Your task to perform on an android device: turn off airplane mode Image 0: 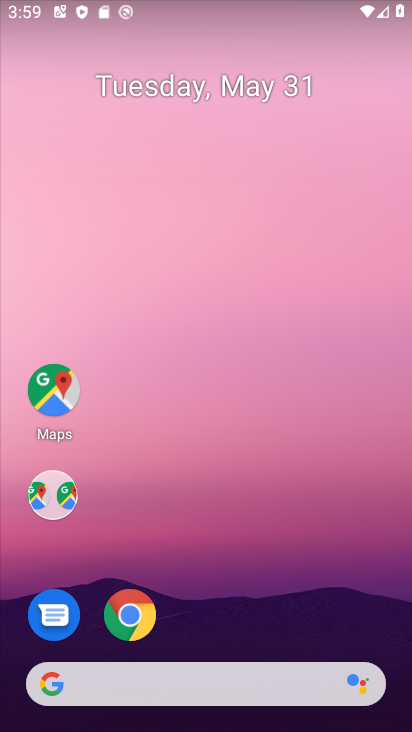
Step 0: drag from (272, 699) to (114, 213)
Your task to perform on an android device: turn off airplane mode Image 1: 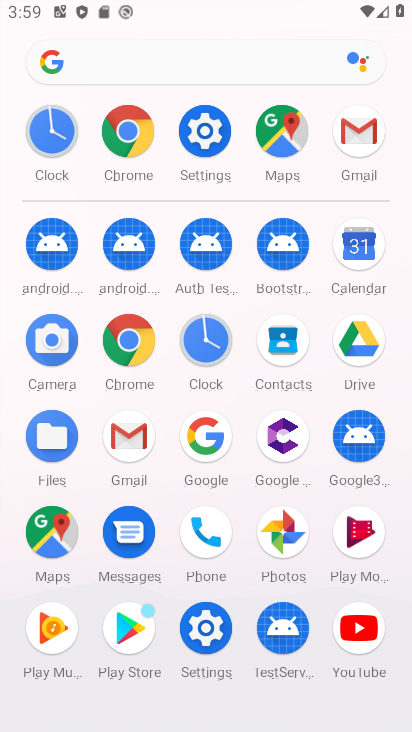
Step 1: click (219, 135)
Your task to perform on an android device: turn off airplane mode Image 2: 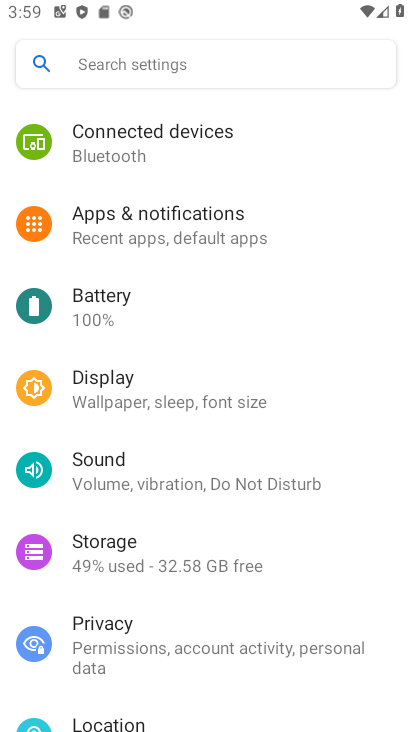
Step 2: drag from (161, 570) to (114, 194)
Your task to perform on an android device: turn off airplane mode Image 3: 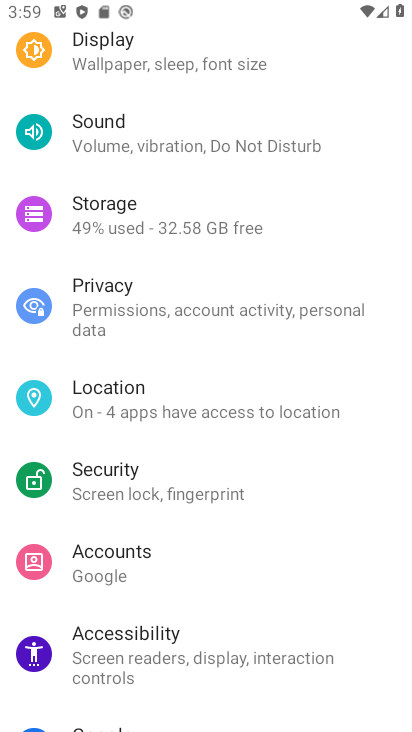
Step 3: drag from (217, 552) to (139, 184)
Your task to perform on an android device: turn off airplane mode Image 4: 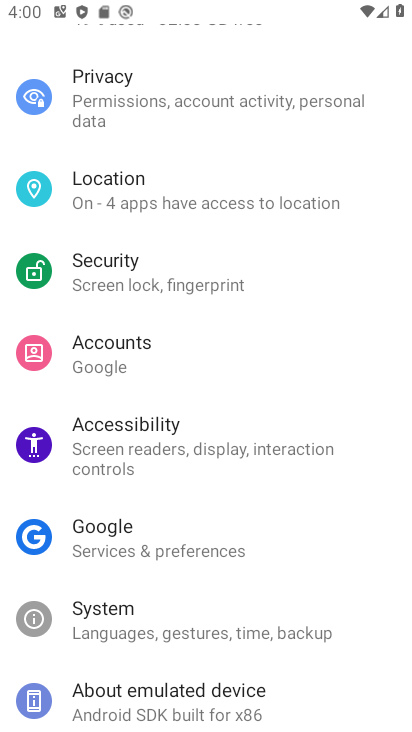
Step 4: drag from (191, 409) to (252, 586)
Your task to perform on an android device: turn off airplane mode Image 5: 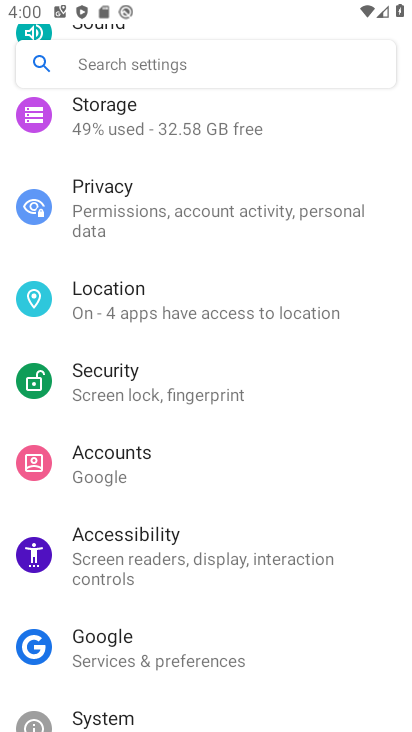
Step 5: drag from (259, 569) to (208, 351)
Your task to perform on an android device: turn off airplane mode Image 6: 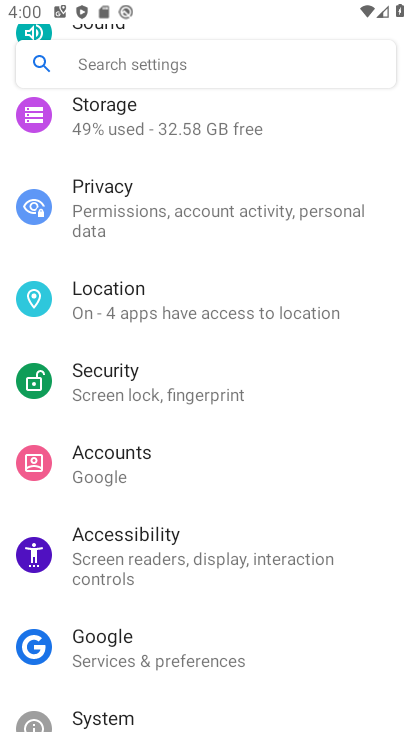
Step 6: drag from (196, 36) to (193, 587)
Your task to perform on an android device: turn off airplane mode Image 7: 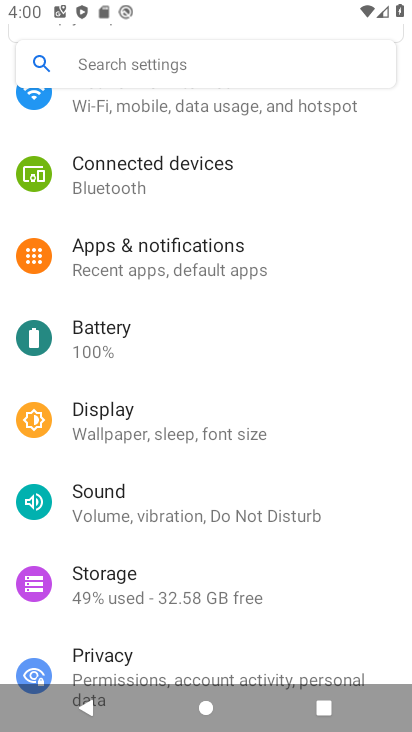
Step 7: click (168, 577)
Your task to perform on an android device: turn off airplane mode Image 8: 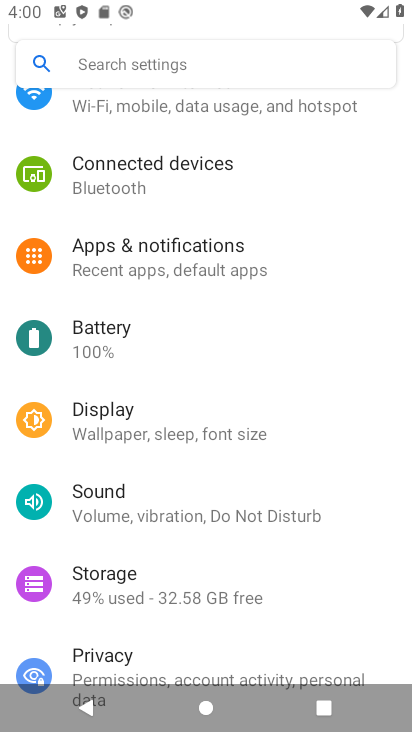
Step 8: drag from (121, 166) to (181, 543)
Your task to perform on an android device: turn off airplane mode Image 9: 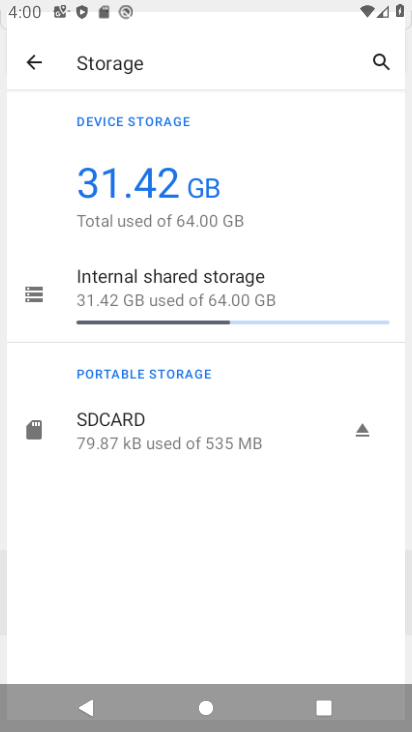
Step 9: drag from (141, 238) to (171, 587)
Your task to perform on an android device: turn off airplane mode Image 10: 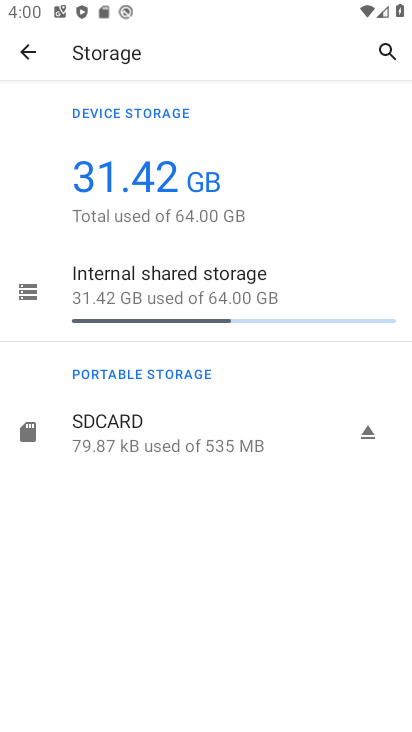
Step 10: drag from (153, 170) to (290, 563)
Your task to perform on an android device: turn off airplane mode Image 11: 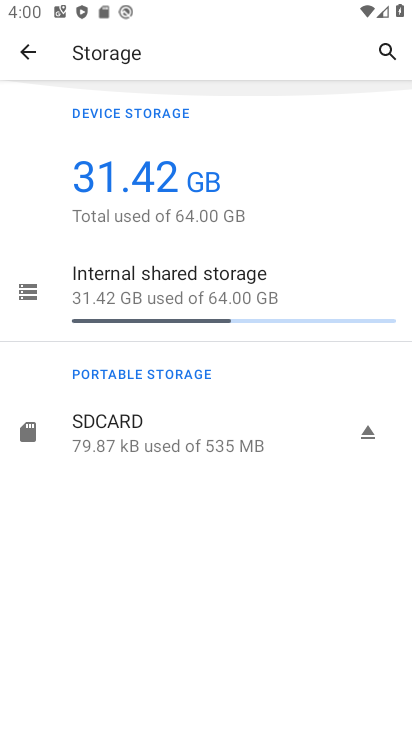
Step 11: click (21, 41)
Your task to perform on an android device: turn off airplane mode Image 12: 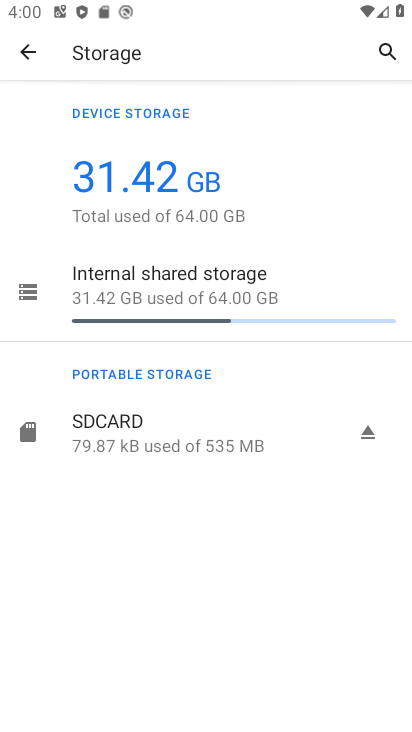
Step 12: click (23, 49)
Your task to perform on an android device: turn off airplane mode Image 13: 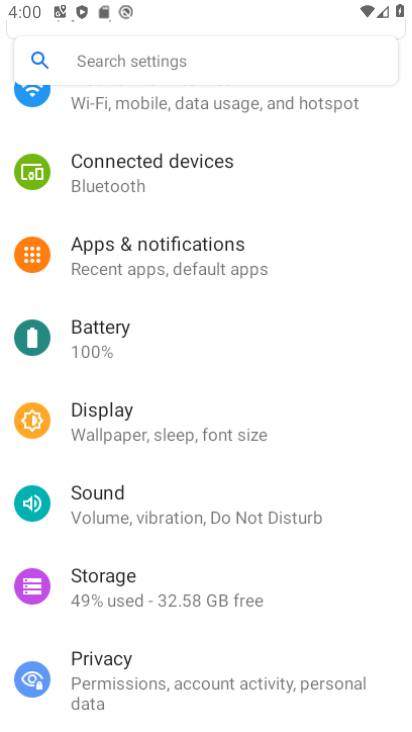
Step 13: click (13, 66)
Your task to perform on an android device: turn off airplane mode Image 14: 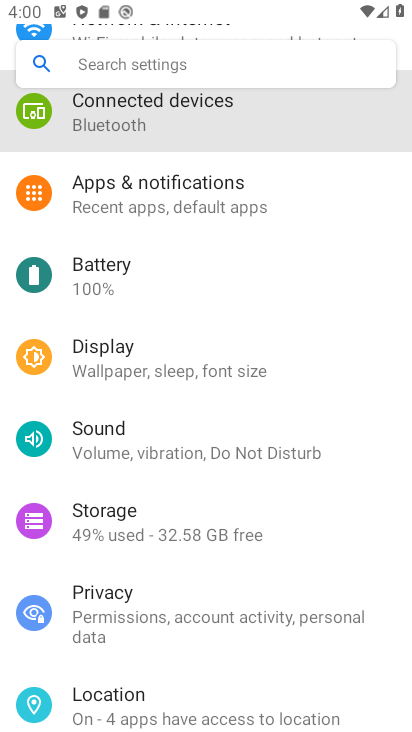
Step 14: click (26, 49)
Your task to perform on an android device: turn off airplane mode Image 15: 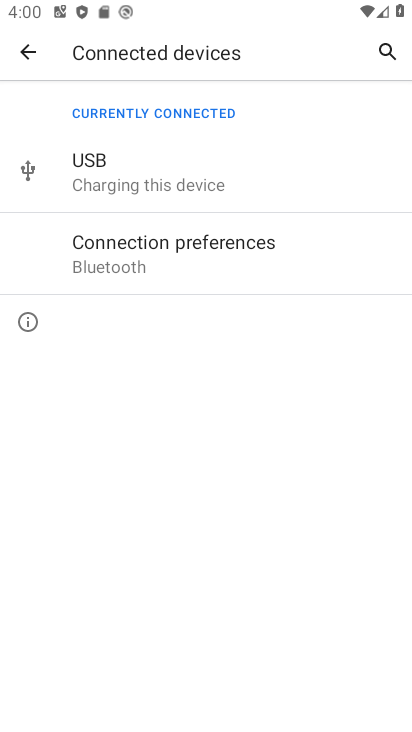
Step 15: click (30, 39)
Your task to perform on an android device: turn off airplane mode Image 16: 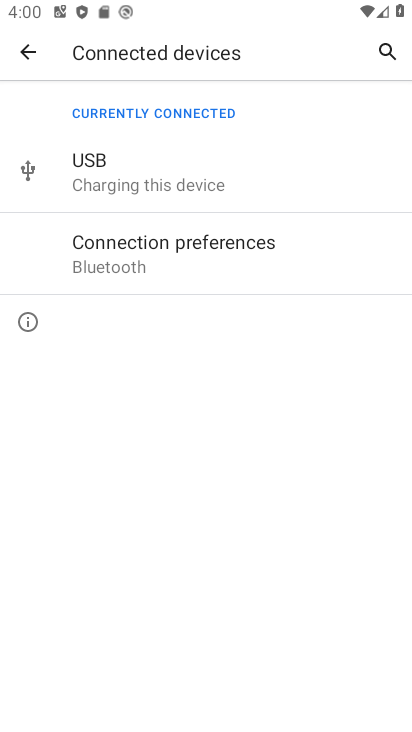
Step 16: click (26, 40)
Your task to perform on an android device: turn off airplane mode Image 17: 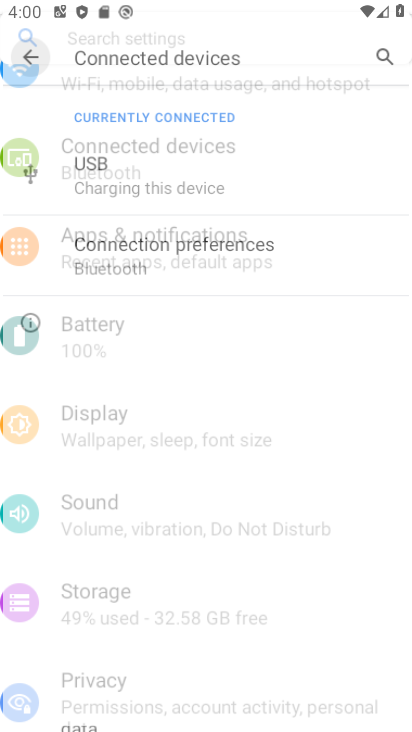
Step 17: click (24, 49)
Your task to perform on an android device: turn off airplane mode Image 18: 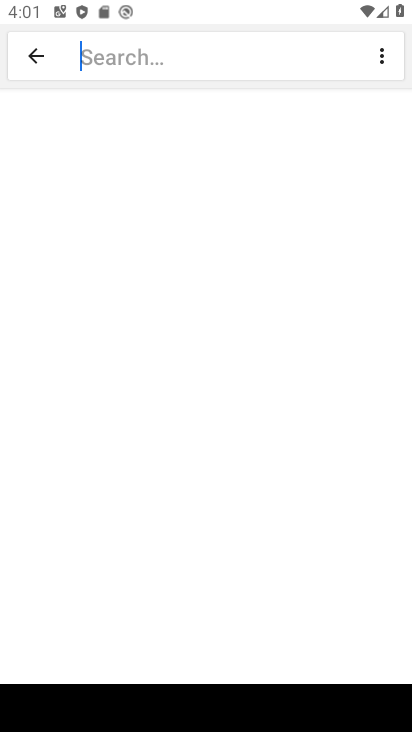
Step 18: click (35, 54)
Your task to perform on an android device: turn off airplane mode Image 19: 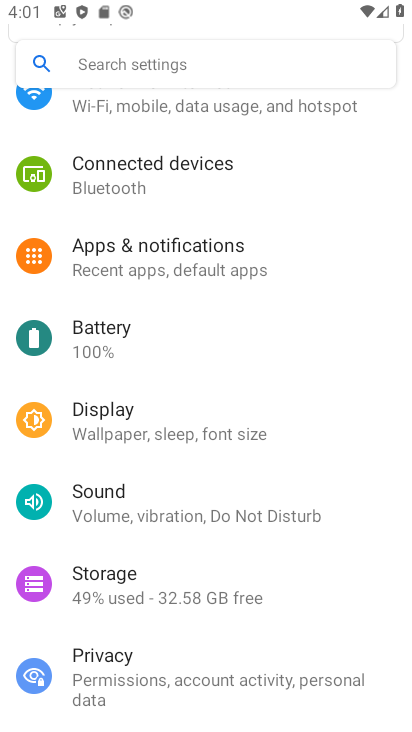
Step 19: drag from (147, 226) to (202, 559)
Your task to perform on an android device: turn off airplane mode Image 20: 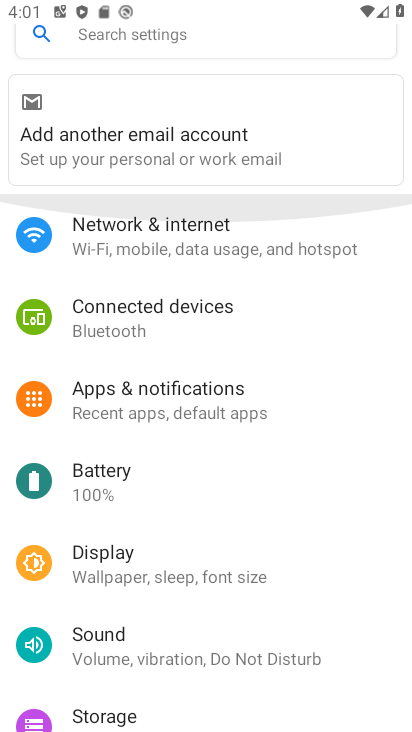
Step 20: drag from (198, 206) to (240, 521)
Your task to perform on an android device: turn off airplane mode Image 21: 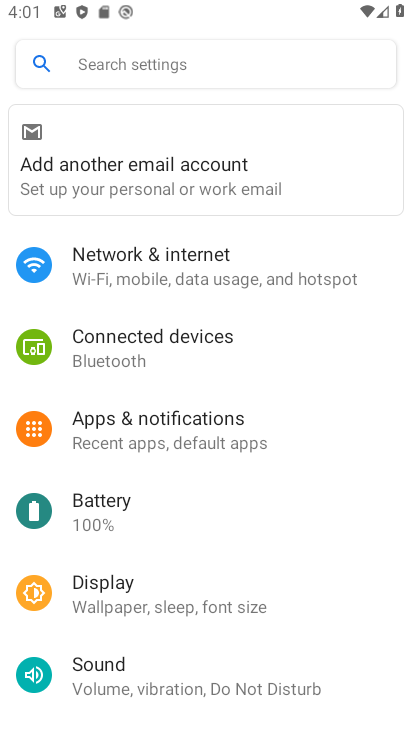
Step 21: click (194, 267)
Your task to perform on an android device: turn off airplane mode Image 22: 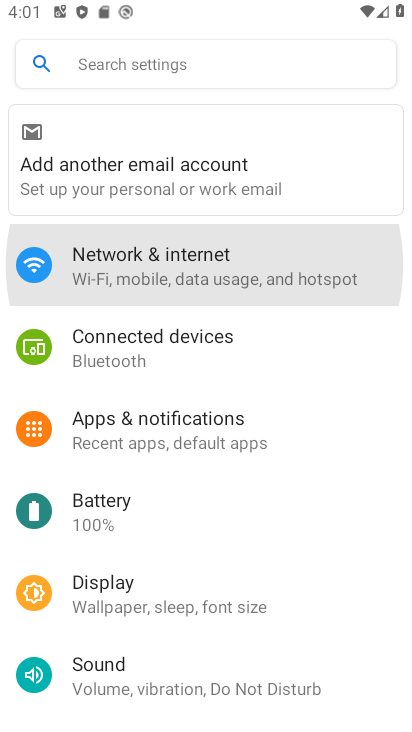
Step 22: click (192, 274)
Your task to perform on an android device: turn off airplane mode Image 23: 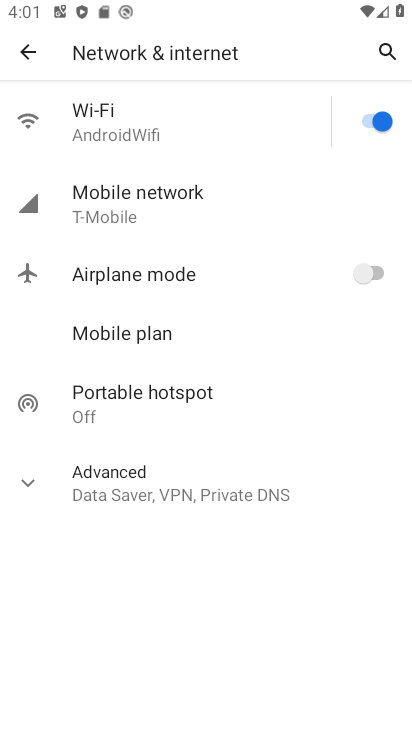
Step 23: task complete